Your task to perform on an android device: Go to Amazon Image 0: 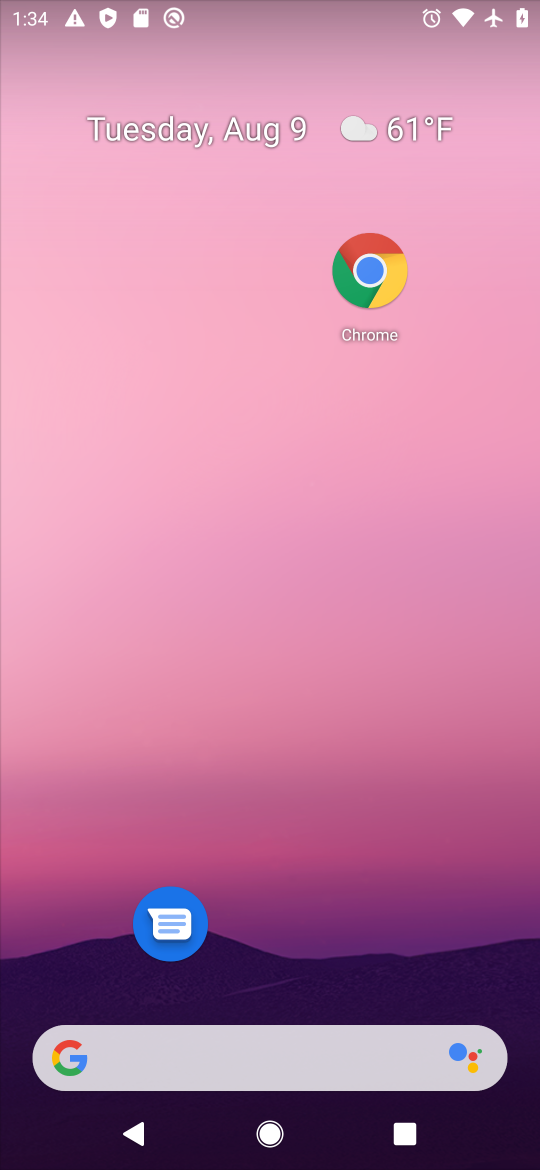
Step 0: drag from (351, 1012) to (238, 165)
Your task to perform on an android device: Go to Amazon Image 1: 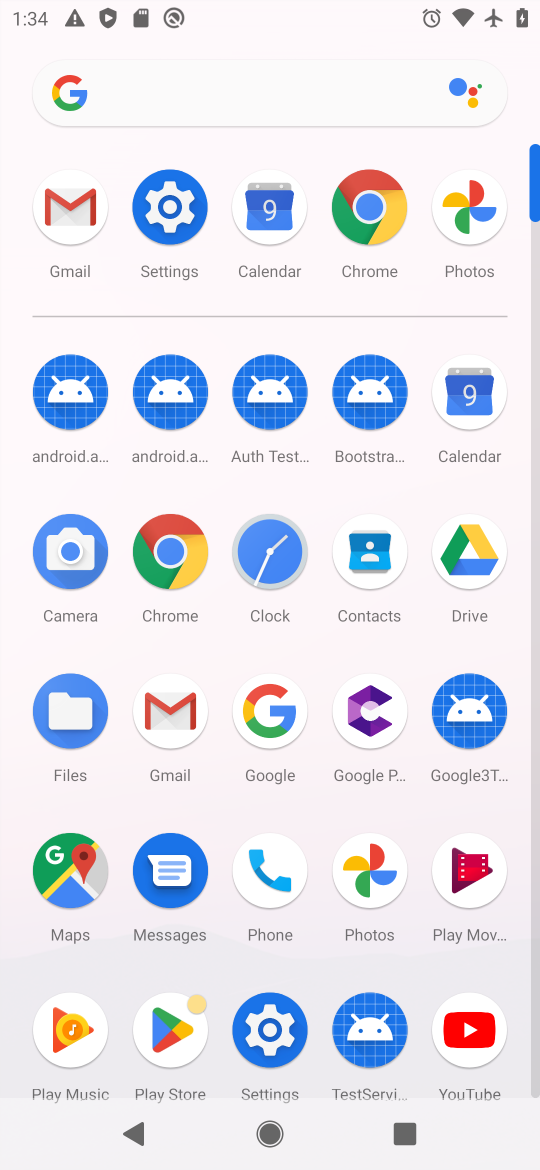
Step 1: click (386, 238)
Your task to perform on an android device: Go to Amazon Image 2: 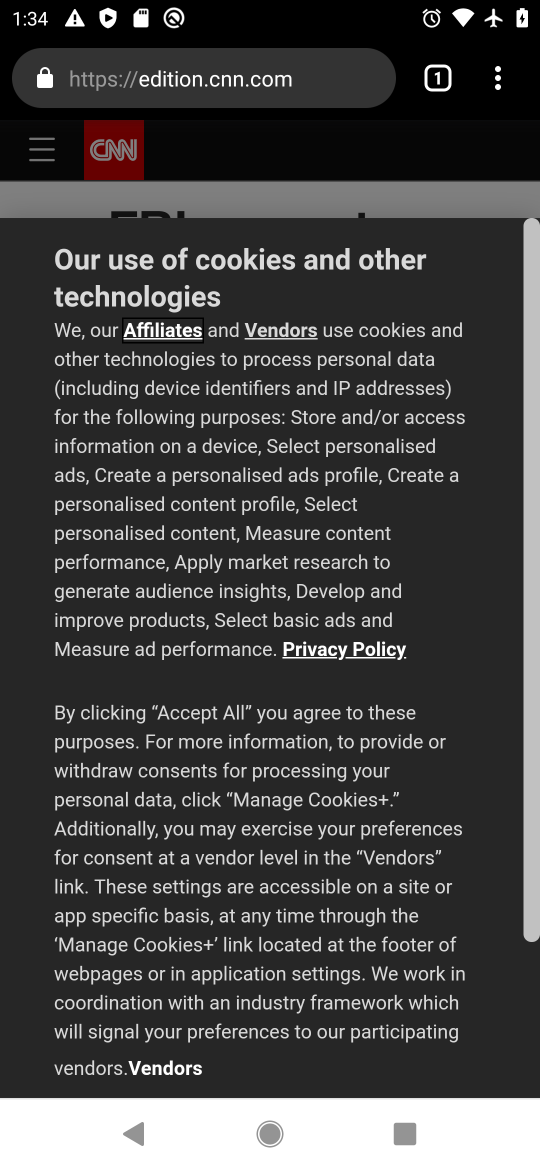
Step 2: task complete